Your task to perform on an android device: open app "Speedtest by Ookla" Image 0: 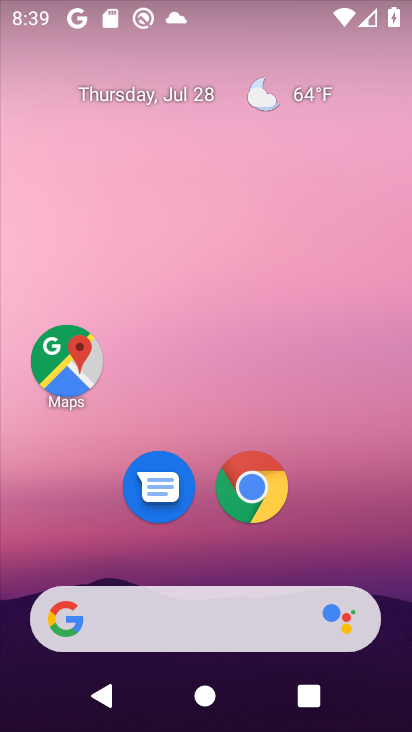
Step 0: drag from (294, 672) to (271, 345)
Your task to perform on an android device: open app "Speedtest by Ookla" Image 1: 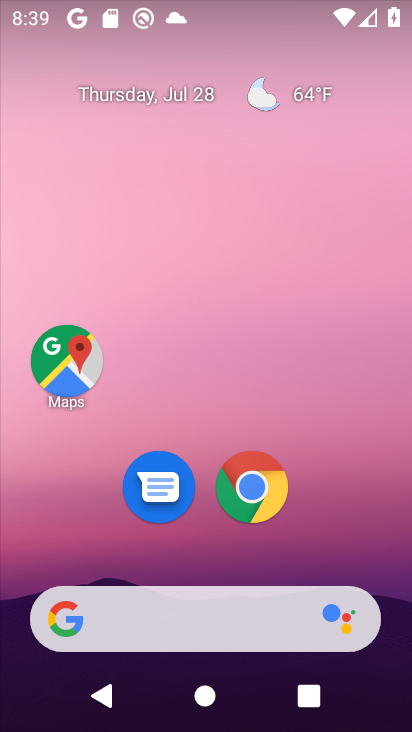
Step 1: click (311, 113)
Your task to perform on an android device: open app "Speedtest by Ookla" Image 2: 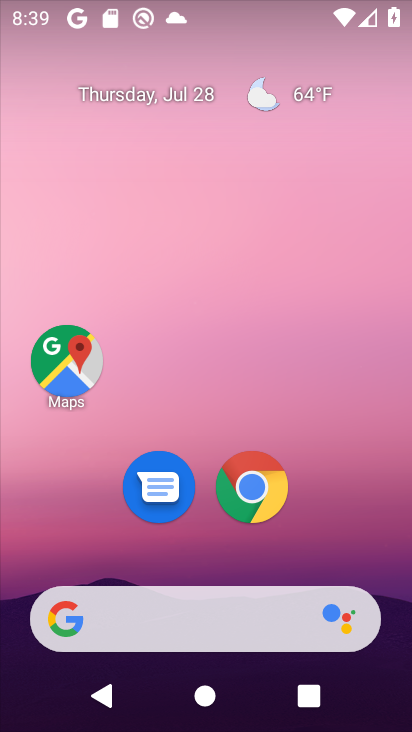
Step 2: drag from (345, 542) to (291, 125)
Your task to perform on an android device: open app "Speedtest by Ookla" Image 3: 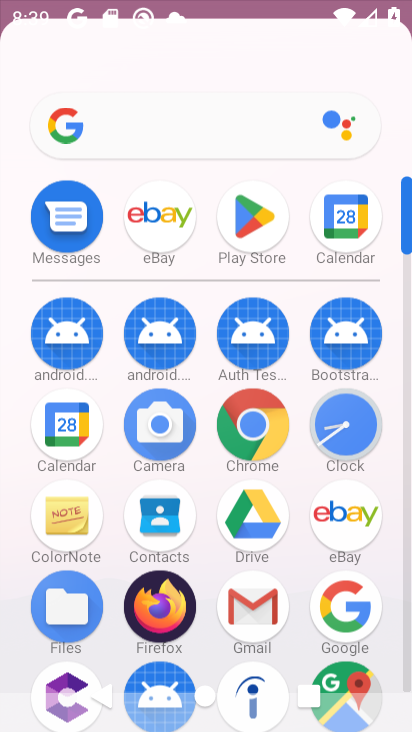
Step 3: drag from (319, 481) to (319, 160)
Your task to perform on an android device: open app "Speedtest by Ookla" Image 4: 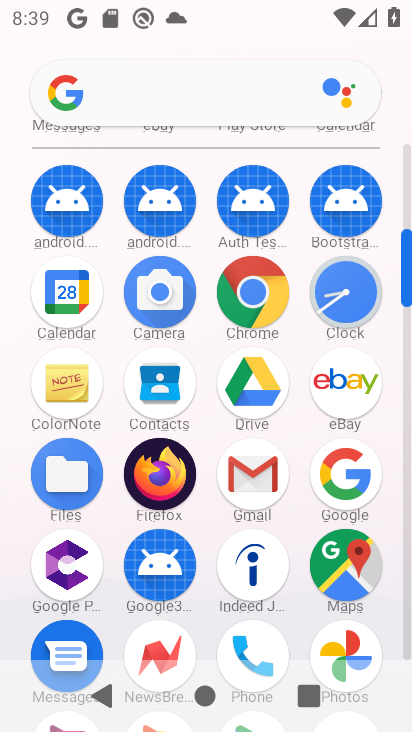
Step 4: drag from (272, 239) to (278, 565)
Your task to perform on an android device: open app "Speedtest by Ookla" Image 5: 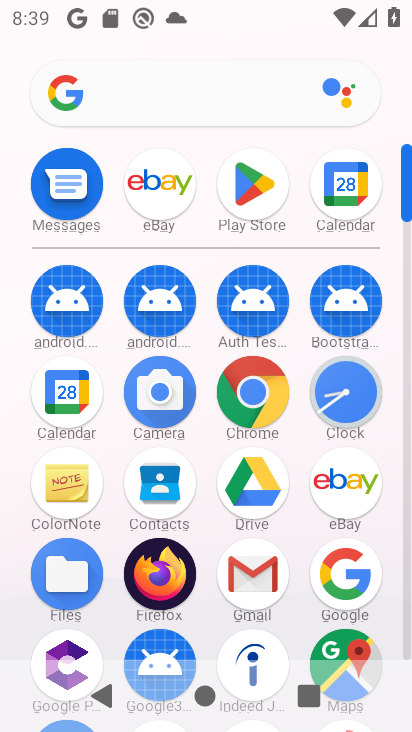
Step 5: click (249, 182)
Your task to perform on an android device: open app "Speedtest by Ookla" Image 6: 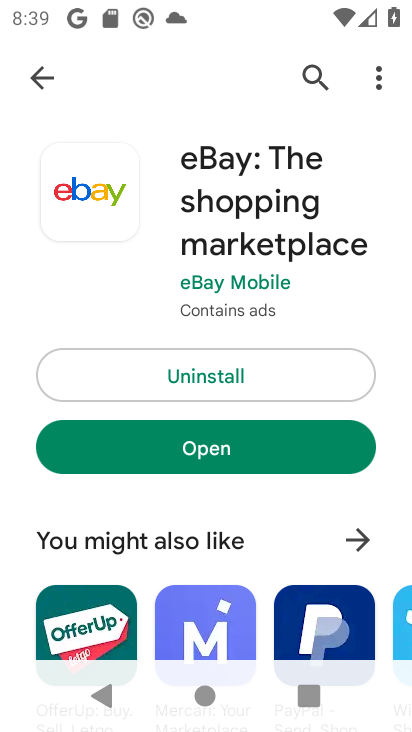
Step 6: click (45, 76)
Your task to perform on an android device: open app "Speedtest by Ookla" Image 7: 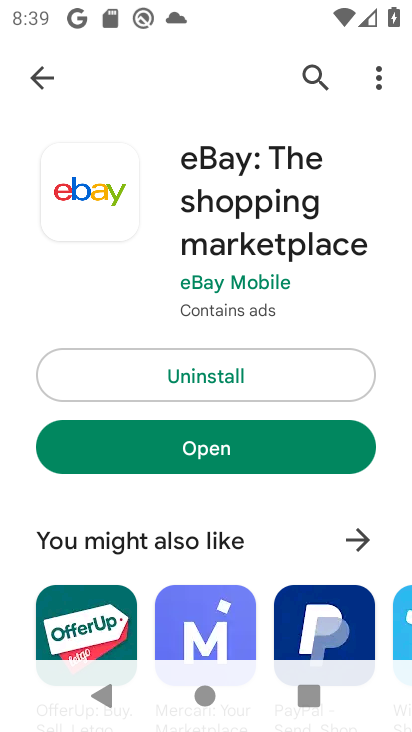
Step 7: click (45, 76)
Your task to perform on an android device: open app "Speedtest by Ookla" Image 8: 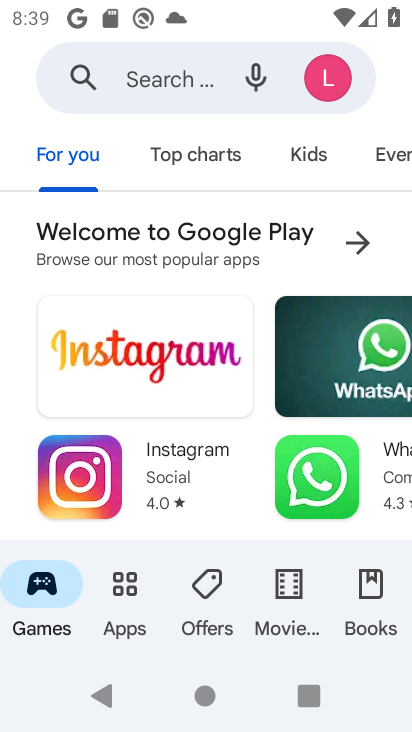
Step 8: click (132, 79)
Your task to perform on an android device: open app "Speedtest by Ookla" Image 9: 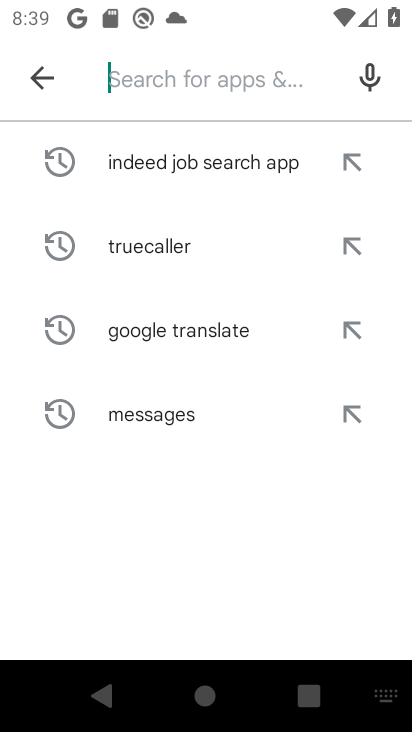
Step 9: type "speedtest by ookla"
Your task to perform on an android device: open app "Speedtest by Ookla" Image 10: 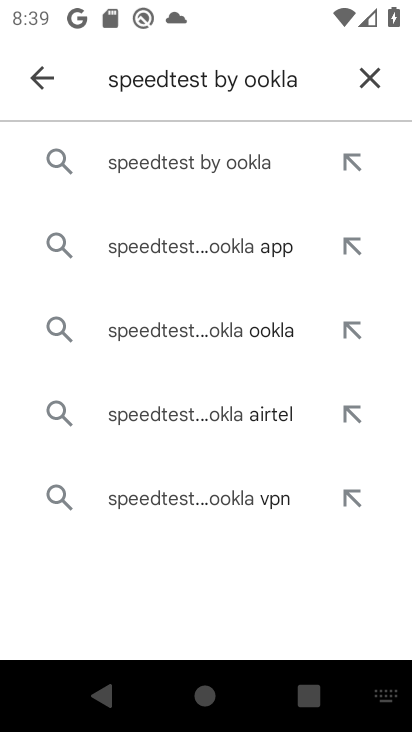
Step 10: click (248, 165)
Your task to perform on an android device: open app "Speedtest by Ookla" Image 11: 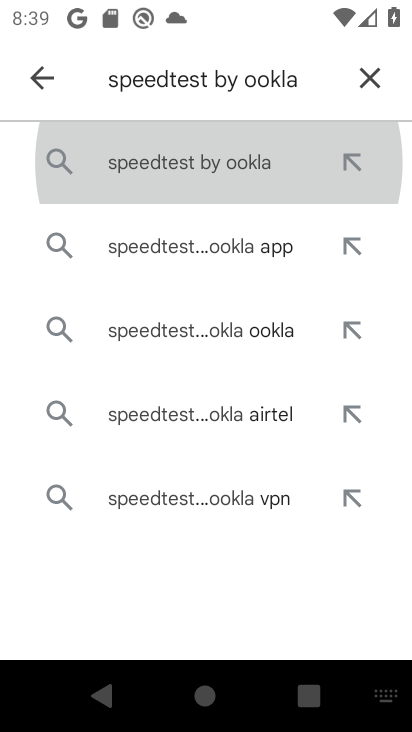
Step 11: click (248, 165)
Your task to perform on an android device: open app "Speedtest by Ookla" Image 12: 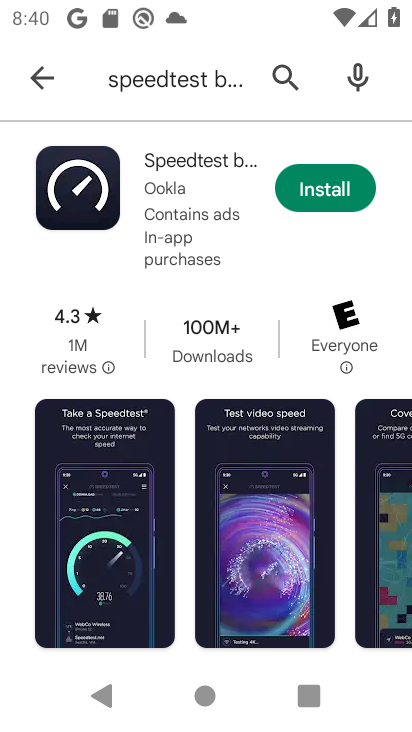
Step 12: click (327, 176)
Your task to perform on an android device: open app "Speedtest by Ookla" Image 13: 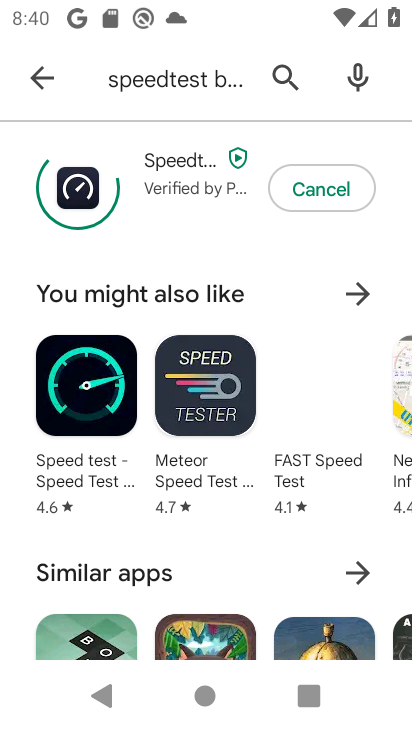
Step 13: click (335, 183)
Your task to perform on an android device: open app "Speedtest by Ookla" Image 14: 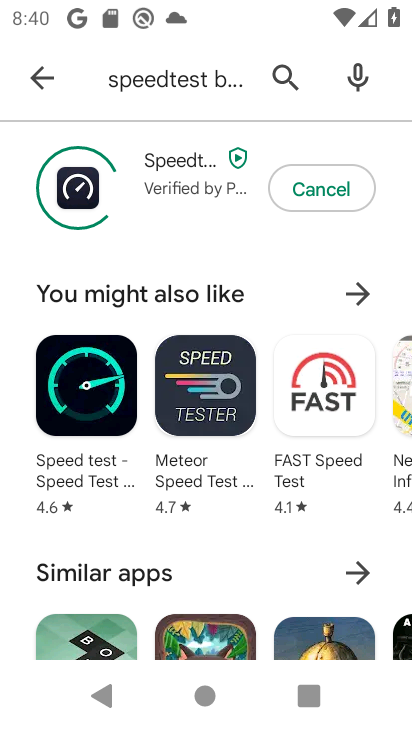
Step 14: click (340, 186)
Your task to perform on an android device: open app "Speedtest by Ookla" Image 15: 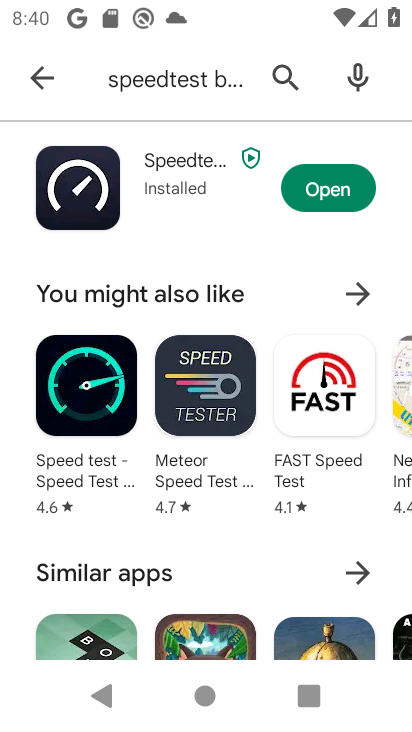
Step 15: click (330, 193)
Your task to perform on an android device: open app "Speedtest by Ookla" Image 16: 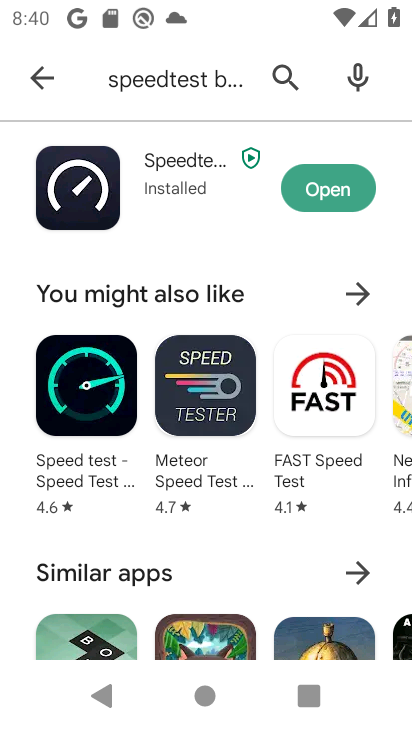
Step 16: click (330, 193)
Your task to perform on an android device: open app "Speedtest by Ookla" Image 17: 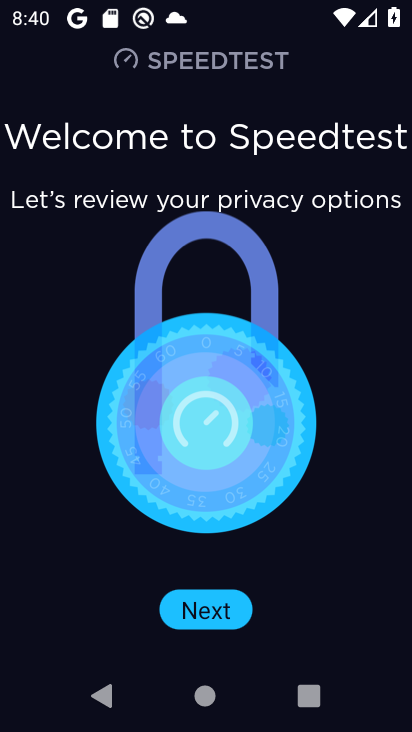
Step 17: click (217, 605)
Your task to perform on an android device: open app "Speedtest by Ookla" Image 18: 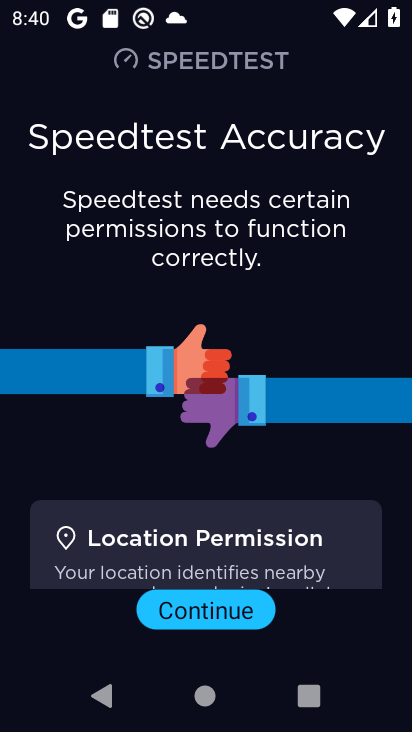
Step 18: click (217, 605)
Your task to perform on an android device: open app "Speedtest by Ookla" Image 19: 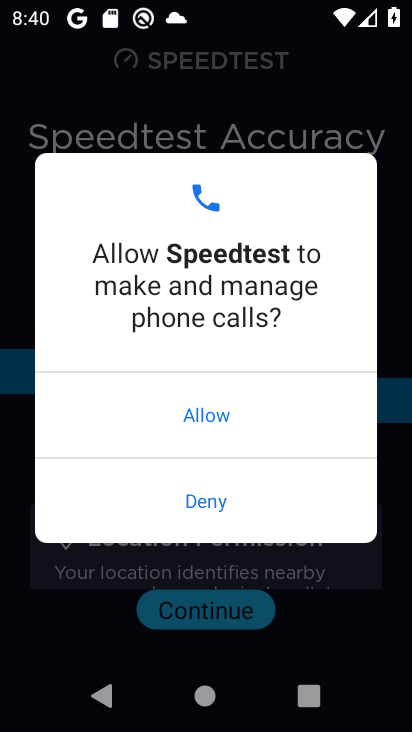
Step 19: click (220, 412)
Your task to perform on an android device: open app "Speedtest by Ookla" Image 20: 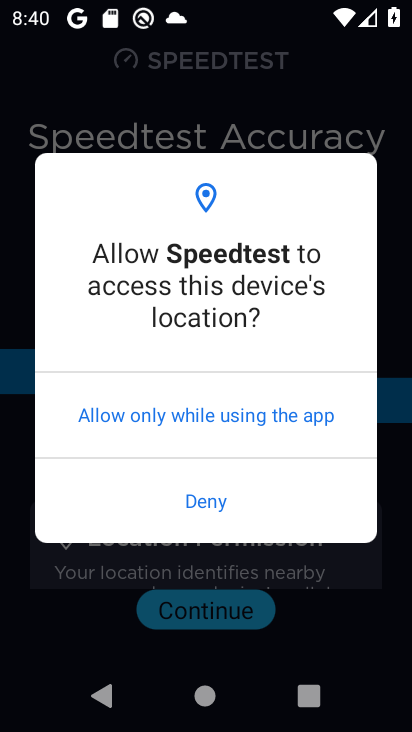
Step 20: click (210, 420)
Your task to perform on an android device: open app "Speedtest by Ookla" Image 21: 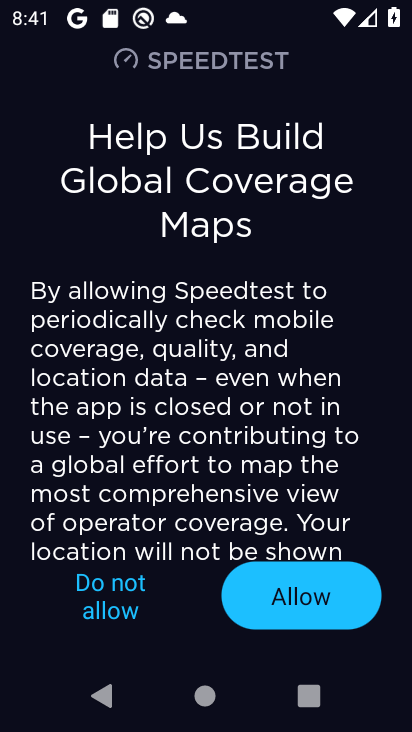
Step 21: click (316, 597)
Your task to perform on an android device: open app "Speedtest by Ookla" Image 22: 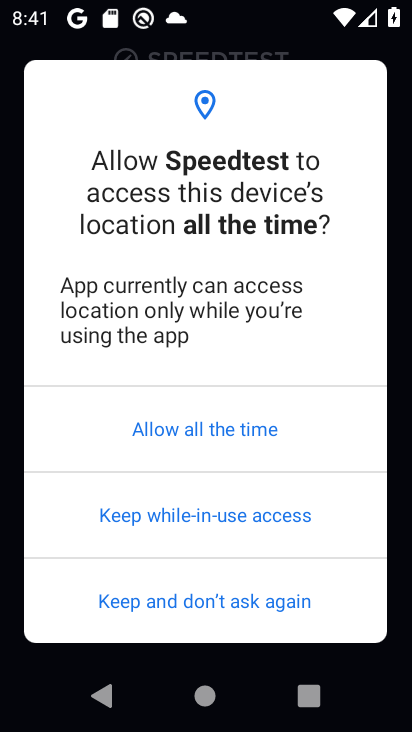
Step 22: click (231, 436)
Your task to perform on an android device: open app "Speedtest by Ookla" Image 23: 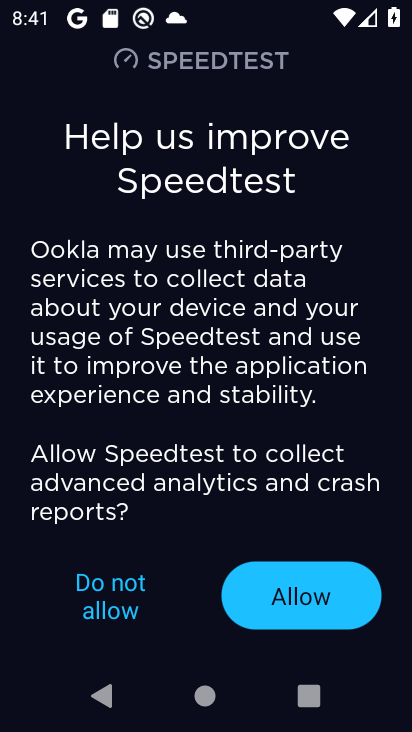
Step 23: click (301, 590)
Your task to perform on an android device: open app "Speedtest by Ookla" Image 24: 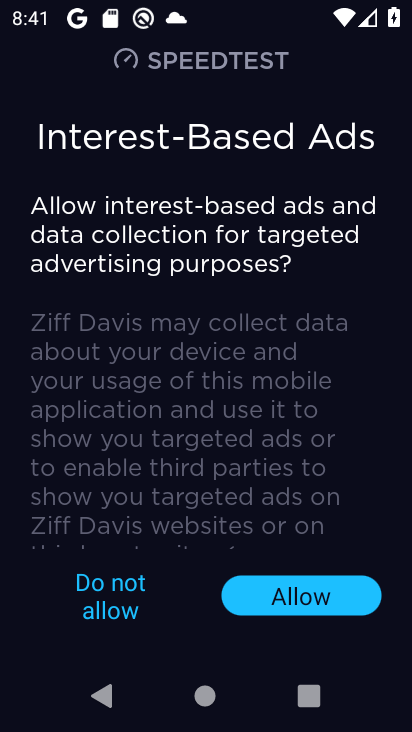
Step 24: click (296, 582)
Your task to perform on an android device: open app "Speedtest by Ookla" Image 25: 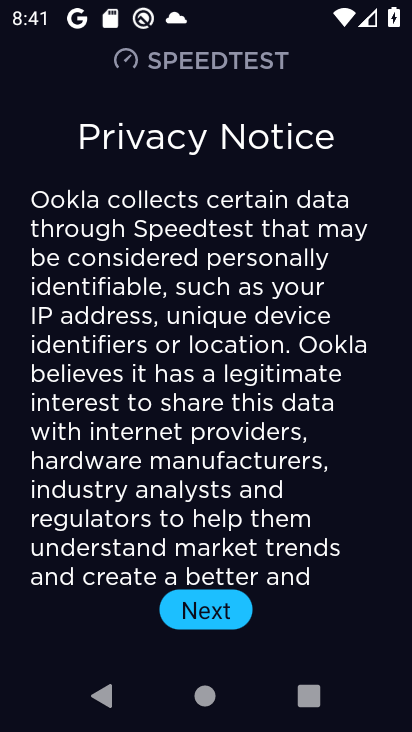
Step 25: task complete